Your task to perform on an android device: Search for shimano brake pads on Walmart Image 0: 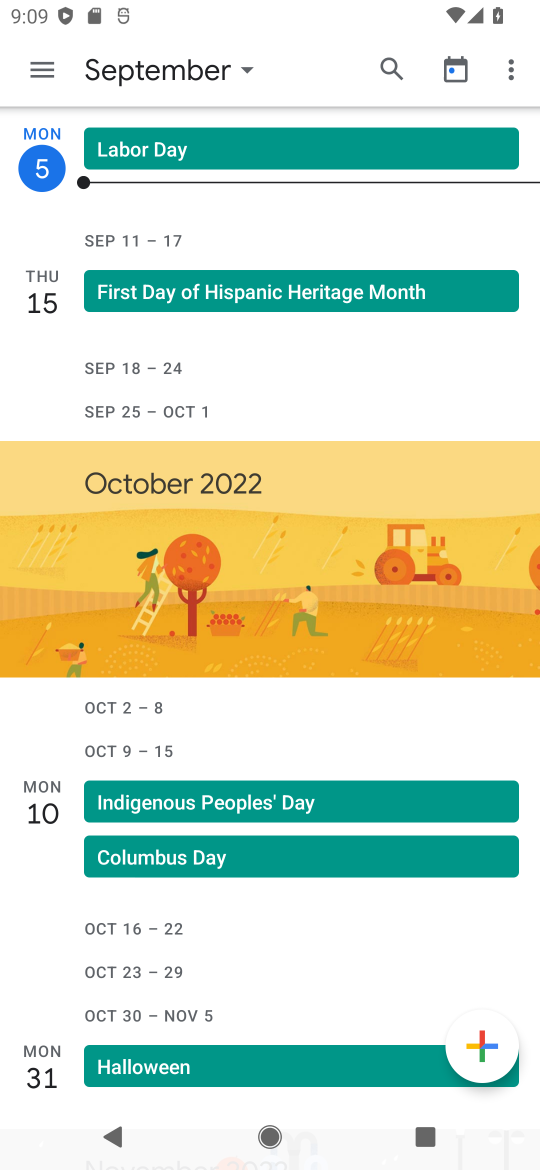
Step 0: press home button
Your task to perform on an android device: Search for shimano brake pads on Walmart Image 1: 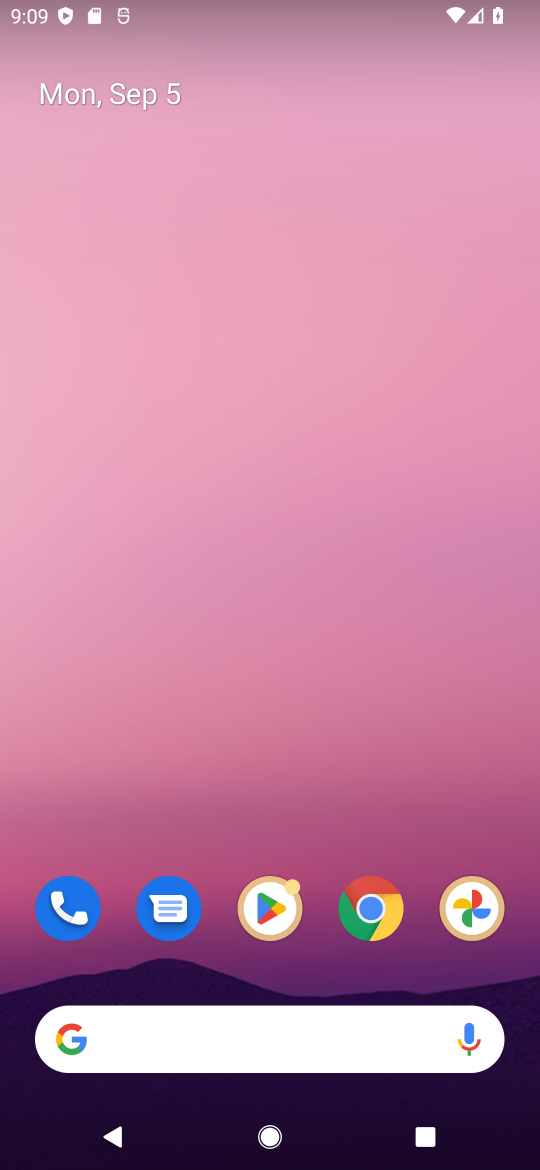
Step 1: drag from (328, 980) to (194, 25)
Your task to perform on an android device: Search for shimano brake pads on Walmart Image 2: 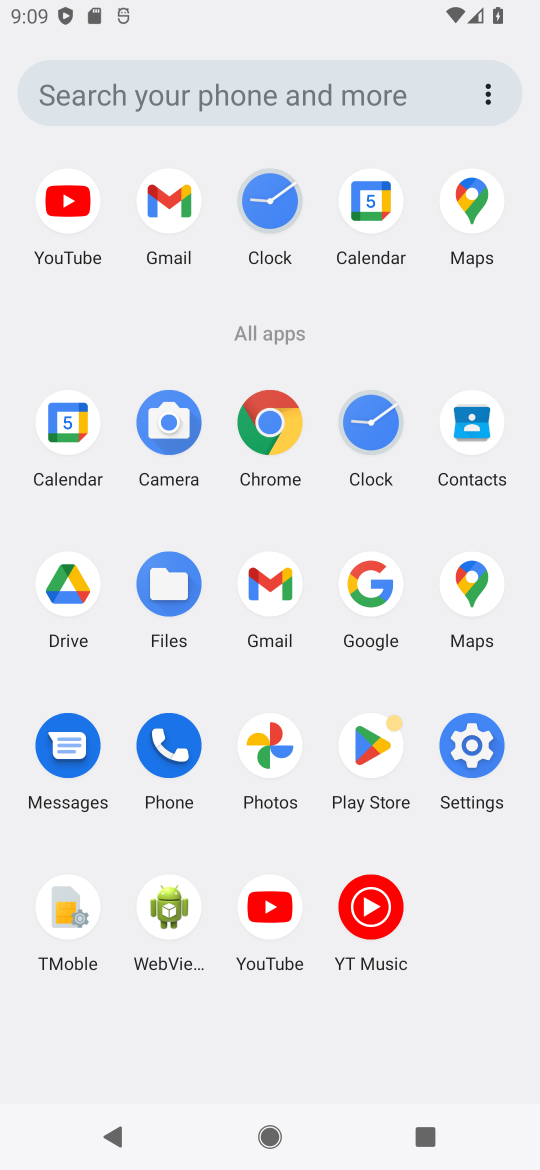
Step 2: click (277, 435)
Your task to perform on an android device: Search for shimano brake pads on Walmart Image 3: 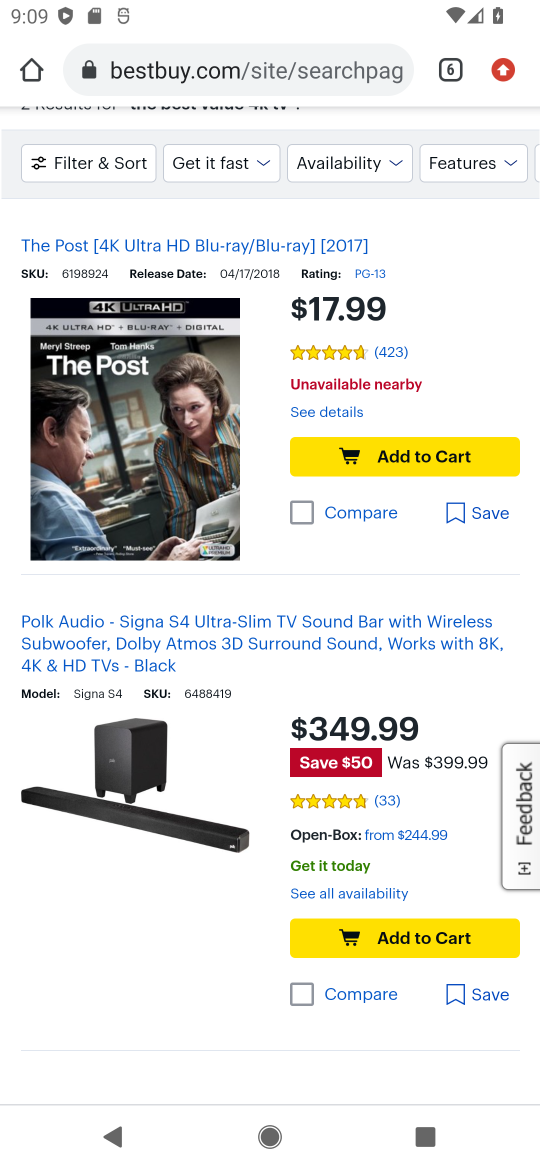
Step 3: click (264, 61)
Your task to perform on an android device: Search for shimano brake pads on Walmart Image 4: 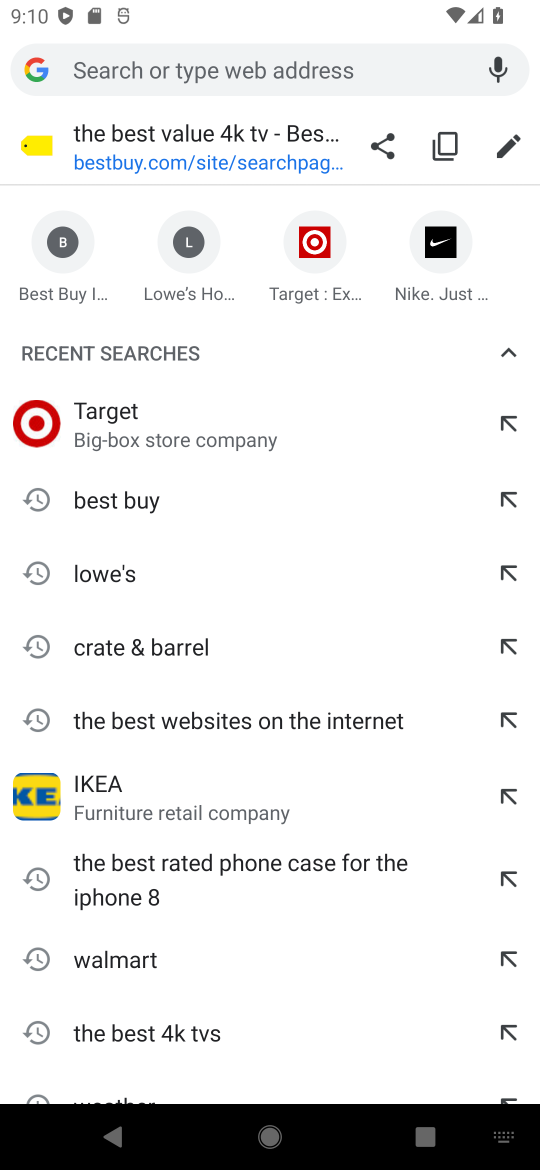
Step 4: type "Walmart"
Your task to perform on an android device: Search for shimano brake pads on Walmart Image 5: 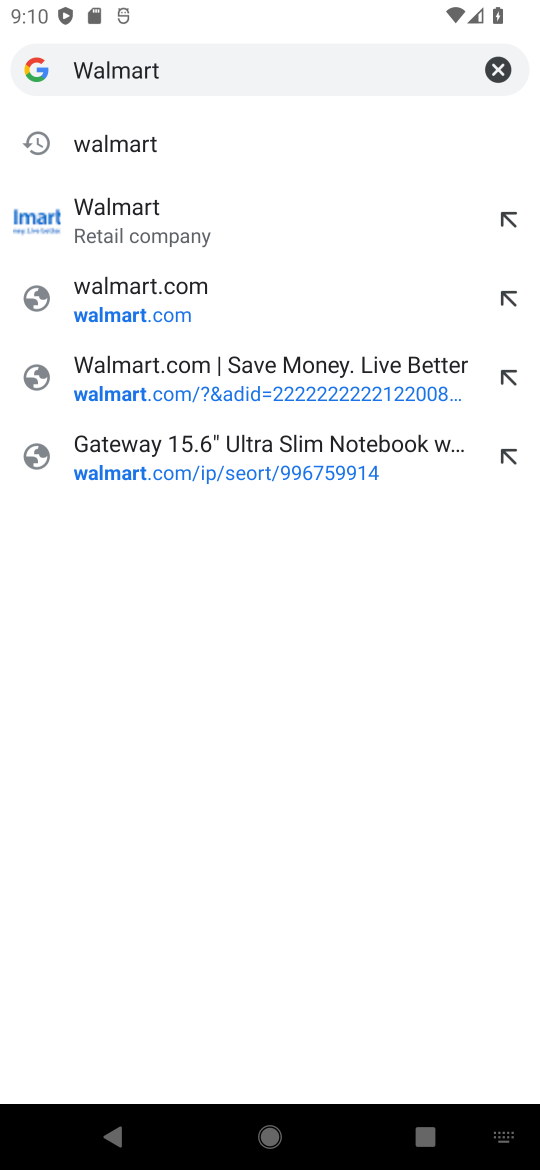
Step 5: click (93, 138)
Your task to perform on an android device: Search for shimano brake pads on Walmart Image 6: 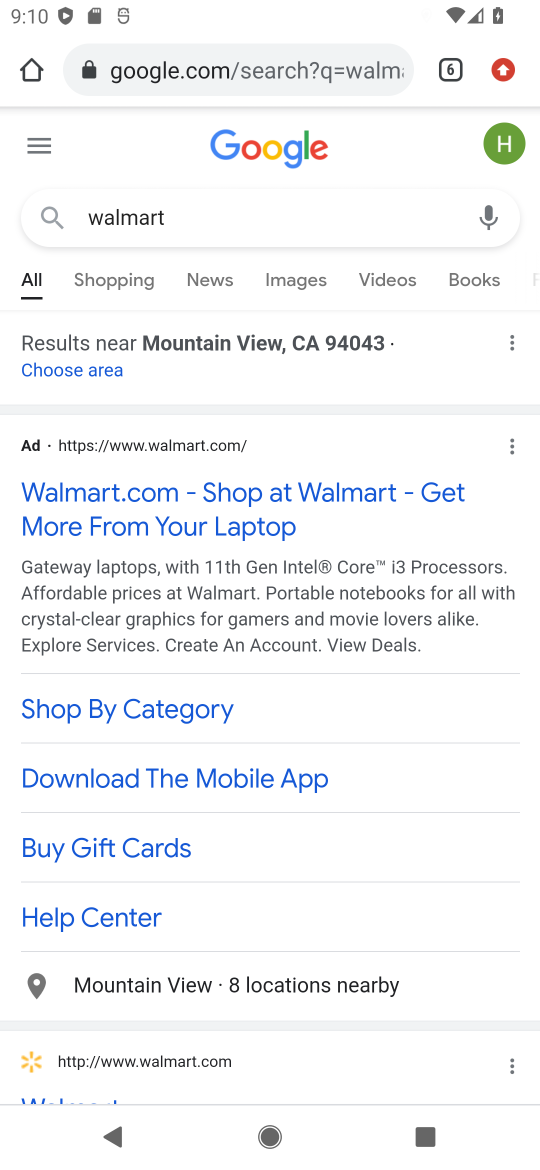
Step 6: click (161, 498)
Your task to perform on an android device: Search for shimano brake pads on Walmart Image 7: 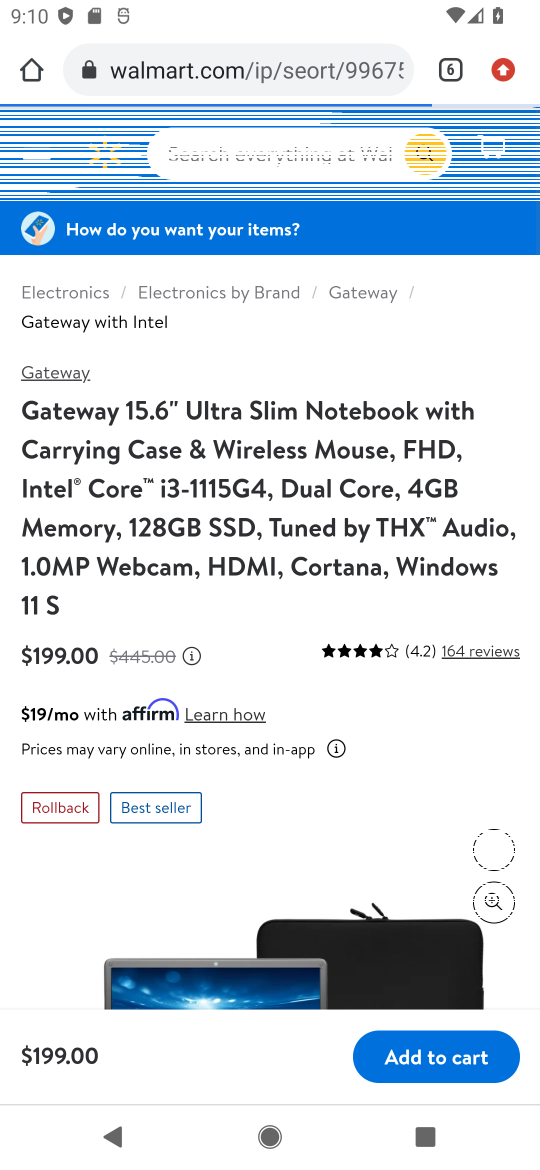
Step 7: drag from (330, 641) to (332, 217)
Your task to perform on an android device: Search for shimano brake pads on Walmart Image 8: 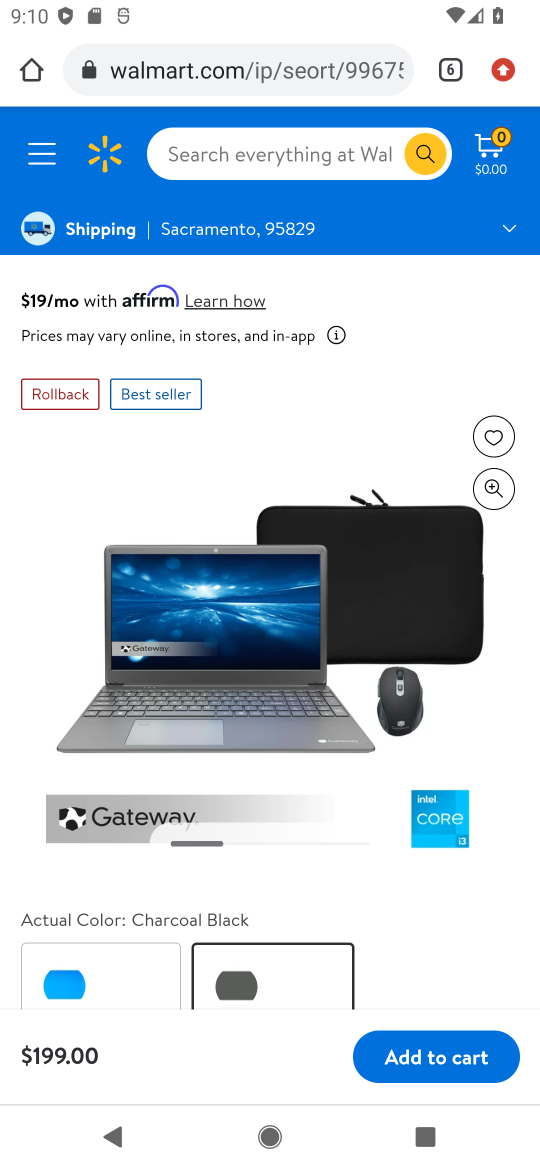
Step 8: click (274, 151)
Your task to perform on an android device: Search for shimano brake pads on Walmart Image 9: 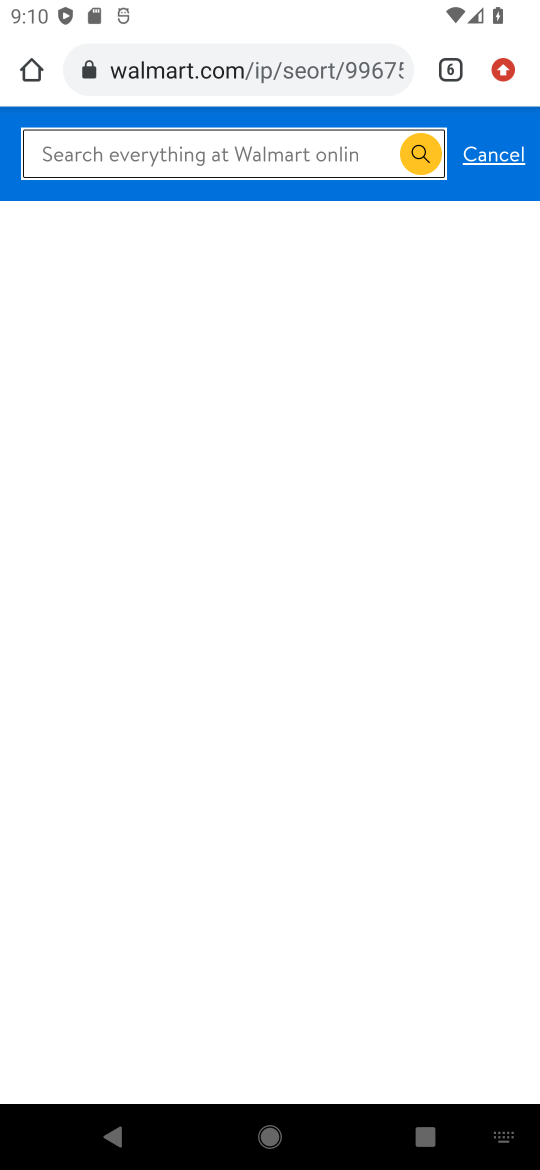
Step 9: type " shimano brake pads "
Your task to perform on an android device: Search for shimano brake pads on Walmart Image 10: 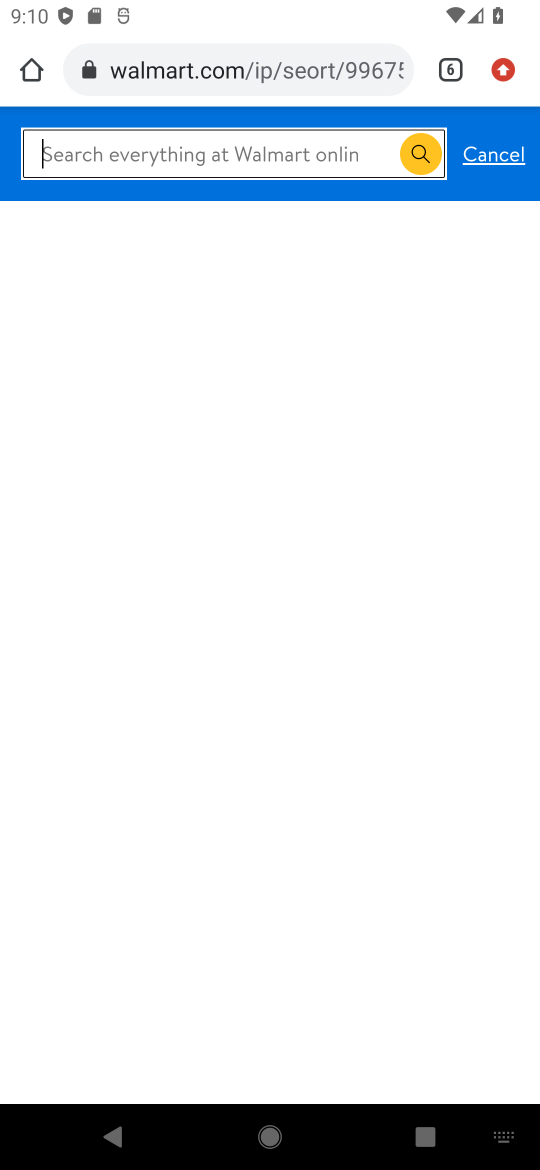
Step 10: type ""
Your task to perform on an android device: Search for shimano brake pads on Walmart Image 11: 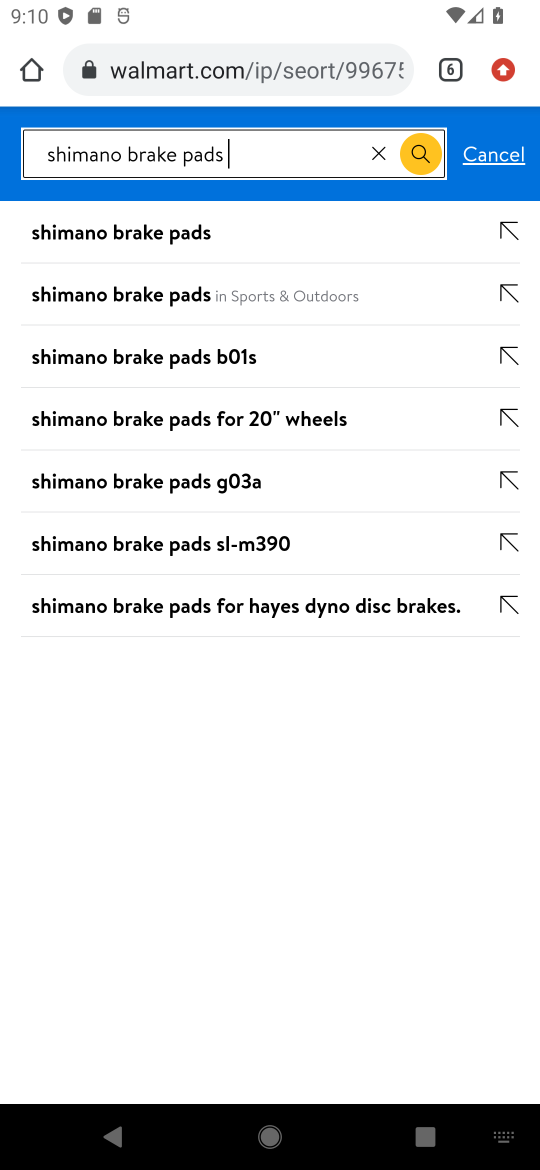
Step 11: click (180, 236)
Your task to perform on an android device: Search for shimano brake pads on Walmart Image 12: 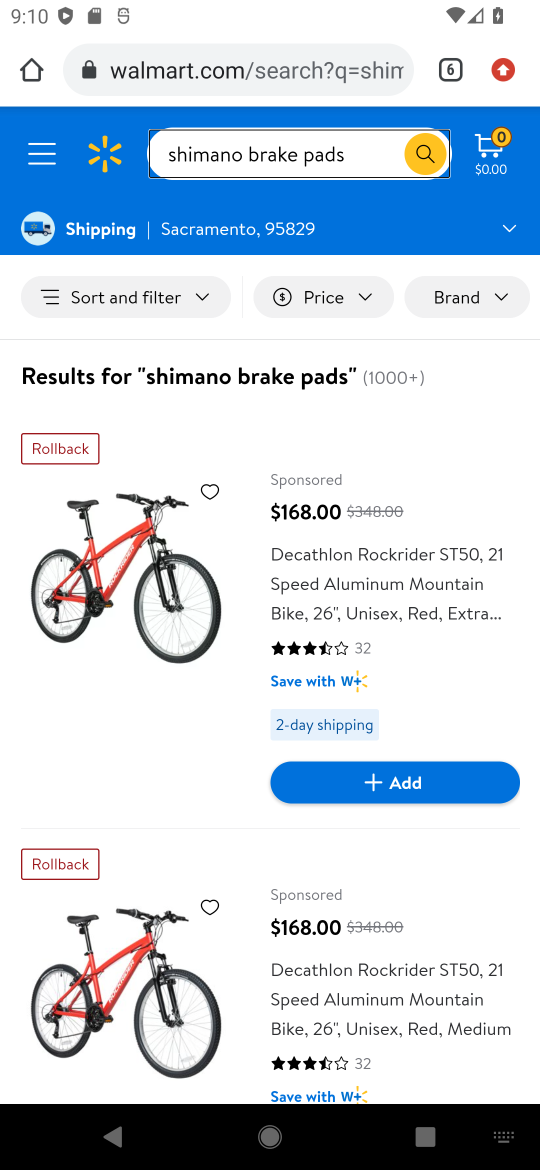
Step 12: task complete